Your task to perform on an android device: uninstall "Clock" Image 0: 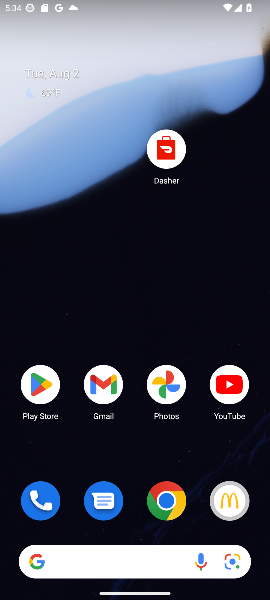
Step 0: drag from (136, 446) to (134, 99)
Your task to perform on an android device: uninstall "Clock" Image 1: 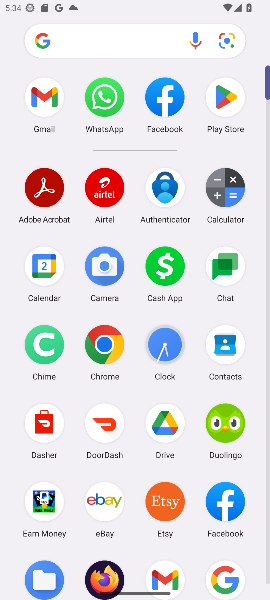
Step 1: click (159, 351)
Your task to perform on an android device: uninstall "Clock" Image 2: 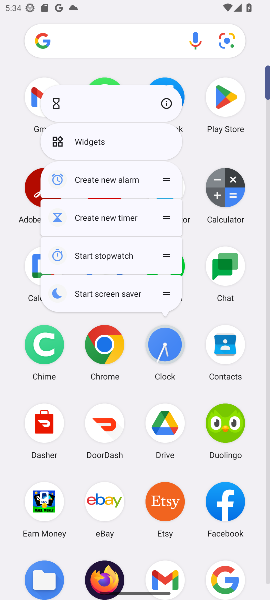
Step 2: click (167, 104)
Your task to perform on an android device: uninstall "Clock" Image 3: 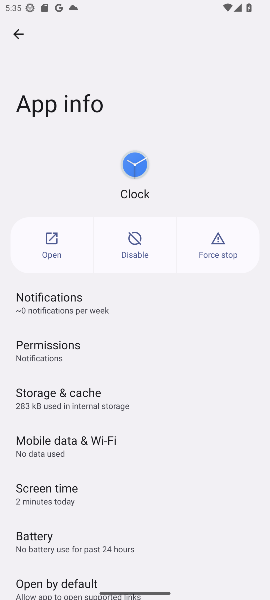
Step 3: task complete